Your task to perform on an android device: refresh tabs in the chrome app Image 0: 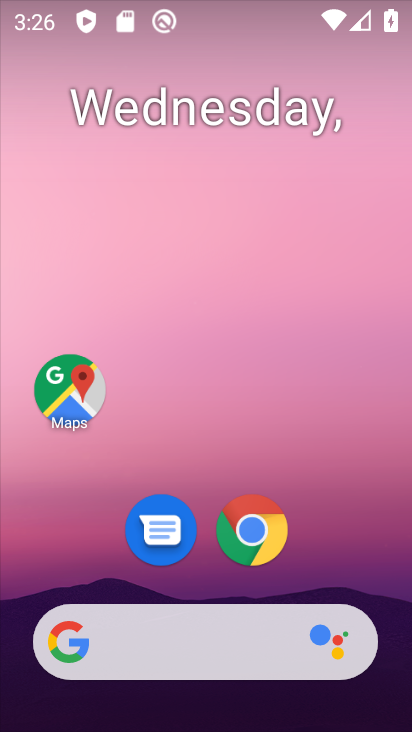
Step 0: click (252, 510)
Your task to perform on an android device: refresh tabs in the chrome app Image 1: 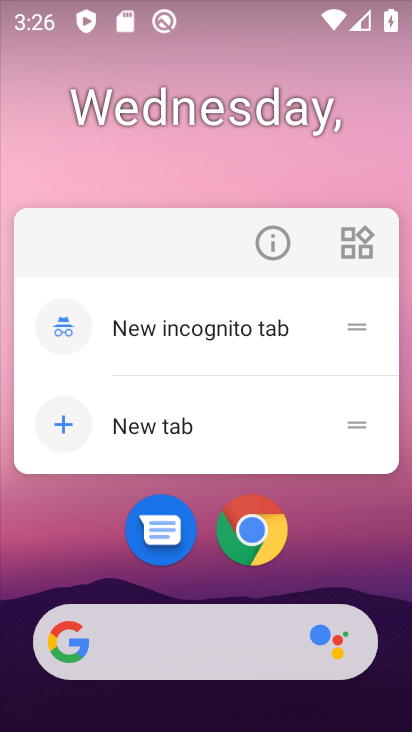
Step 1: click (259, 539)
Your task to perform on an android device: refresh tabs in the chrome app Image 2: 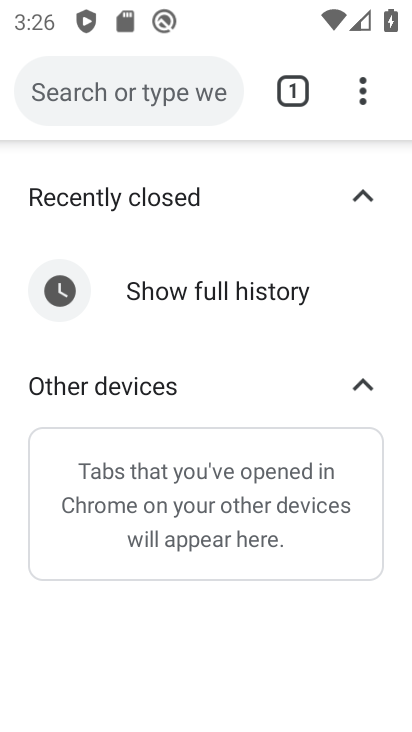
Step 2: drag from (366, 100) to (411, 95)
Your task to perform on an android device: refresh tabs in the chrome app Image 3: 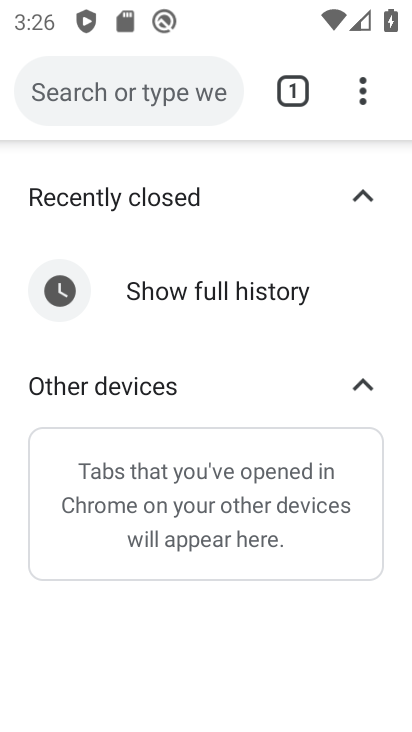
Step 3: click (360, 79)
Your task to perform on an android device: refresh tabs in the chrome app Image 4: 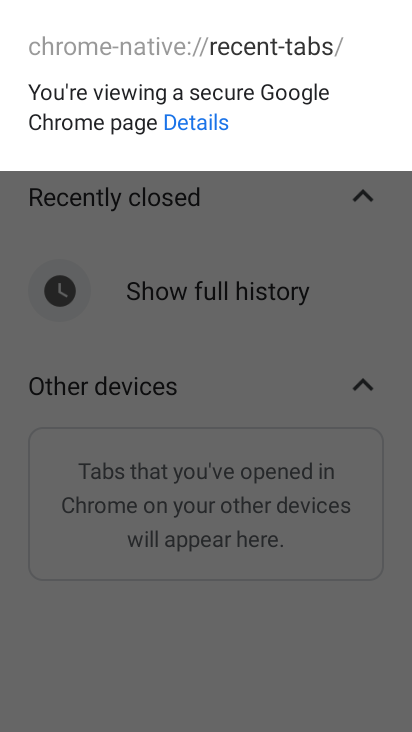
Step 4: click (291, 182)
Your task to perform on an android device: refresh tabs in the chrome app Image 5: 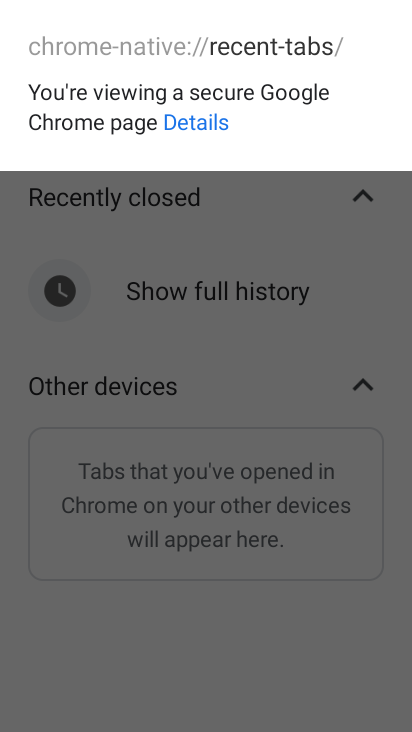
Step 5: click (250, 673)
Your task to perform on an android device: refresh tabs in the chrome app Image 6: 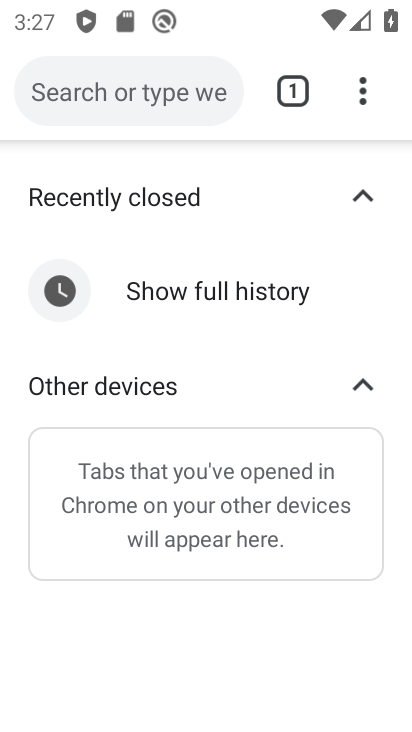
Step 6: task complete